Your task to perform on an android device: Go to Yahoo.com Image 0: 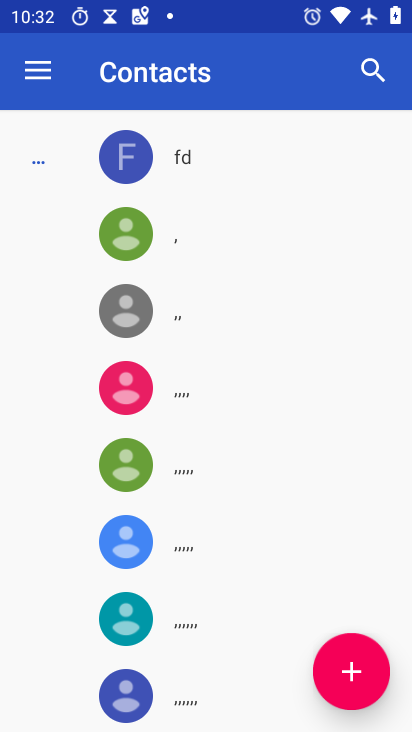
Step 0: press home button
Your task to perform on an android device: Go to Yahoo.com Image 1: 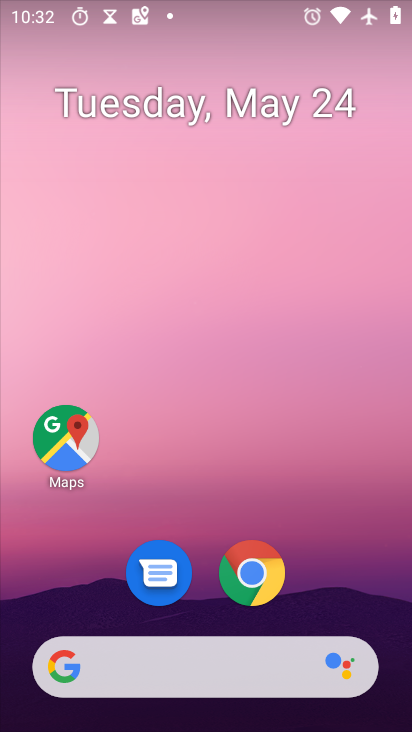
Step 1: click (264, 587)
Your task to perform on an android device: Go to Yahoo.com Image 2: 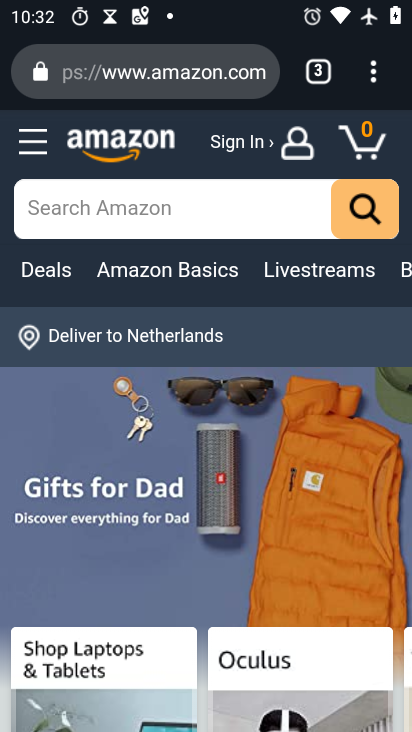
Step 2: click (172, 80)
Your task to perform on an android device: Go to Yahoo.com Image 3: 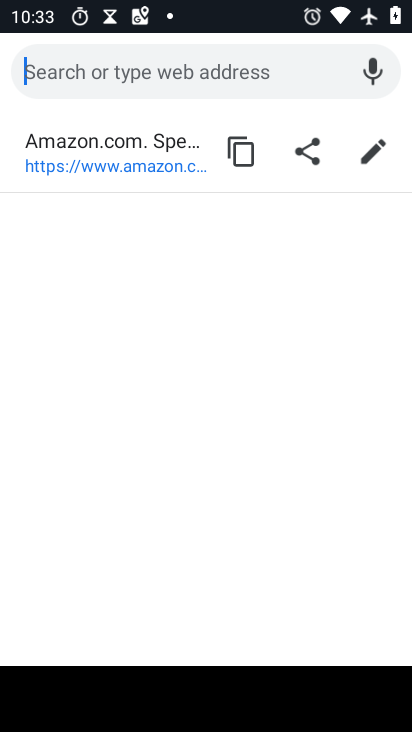
Step 3: type "yahoo"
Your task to perform on an android device: Go to Yahoo.com Image 4: 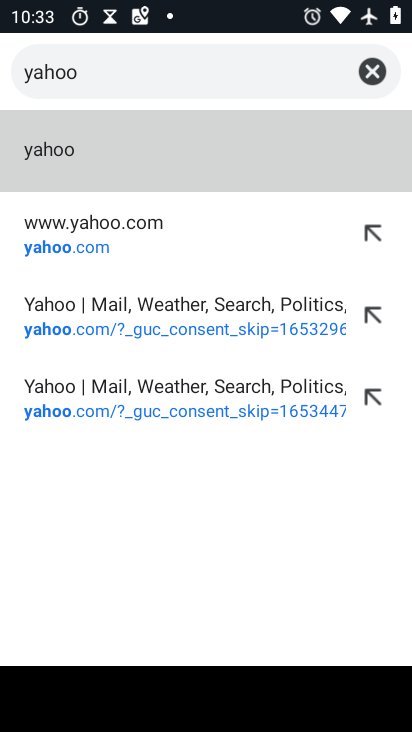
Step 4: click (90, 220)
Your task to perform on an android device: Go to Yahoo.com Image 5: 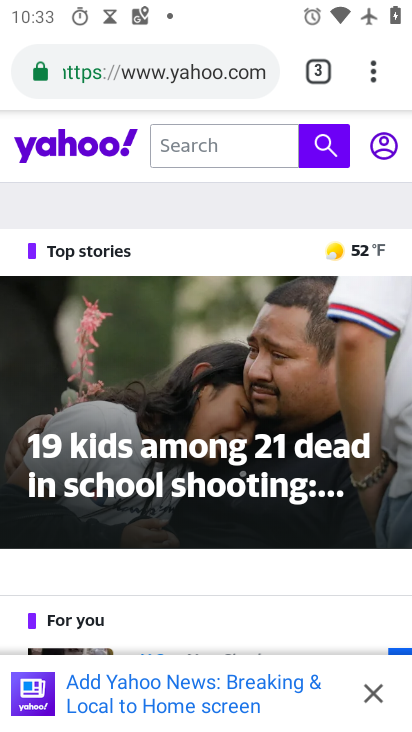
Step 5: task complete